Your task to perform on an android device: check battery use Image 0: 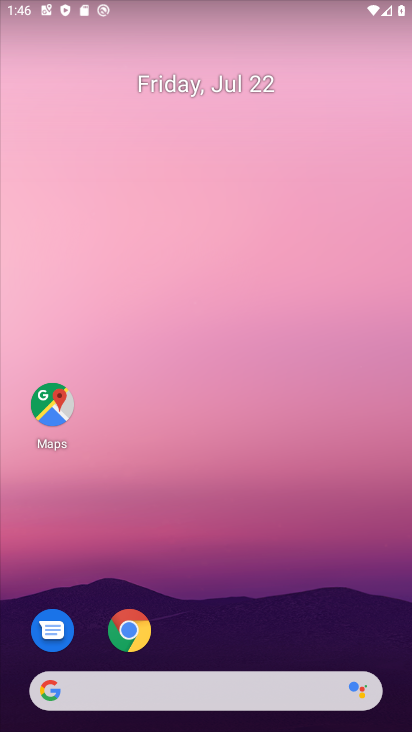
Step 0: drag from (180, 578) to (180, 152)
Your task to perform on an android device: check battery use Image 1: 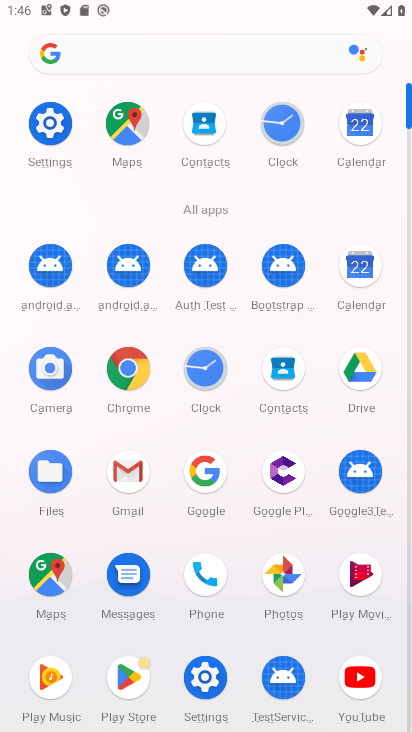
Step 1: click (39, 129)
Your task to perform on an android device: check battery use Image 2: 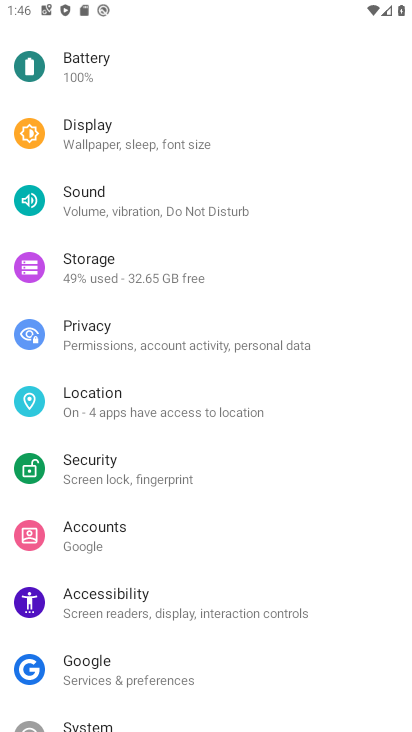
Step 2: click (116, 73)
Your task to perform on an android device: check battery use Image 3: 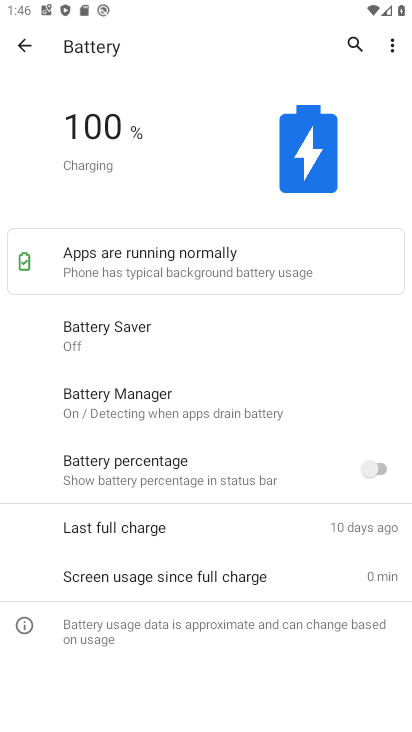
Step 3: task complete